Your task to perform on an android device: move a message to another label in the gmail app Image 0: 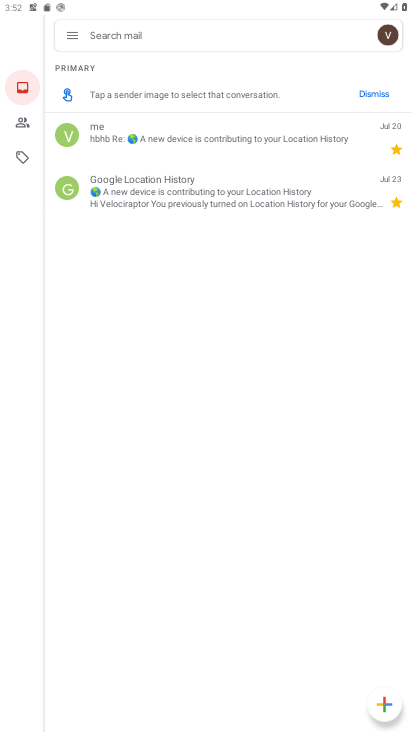
Step 0: click (163, 147)
Your task to perform on an android device: move a message to another label in the gmail app Image 1: 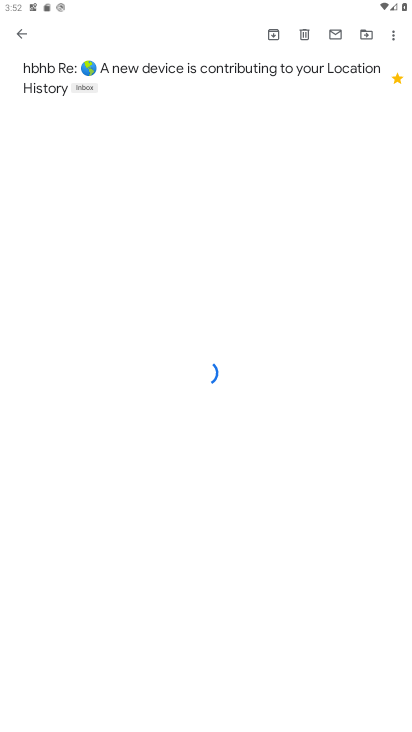
Step 1: task complete